Your task to perform on an android device: Open Google Chrome and open the bookmarks view Image 0: 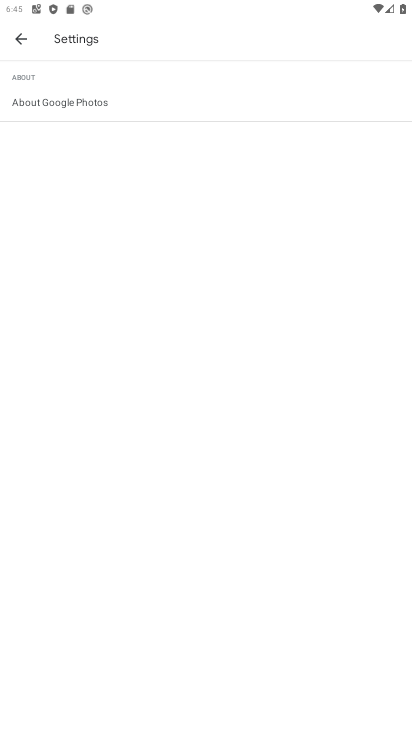
Step 0: press home button
Your task to perform on an android device: Open Google Chrome and open the bookmarks view Image 1: 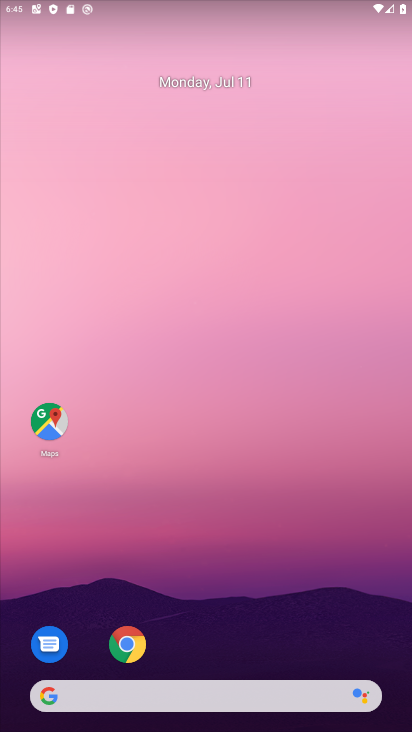
Step 1: drag from (207, 609) to (227, 198)
Your task to perform on an android device: Open Google Chrome and open the bookmarks view Image 2: 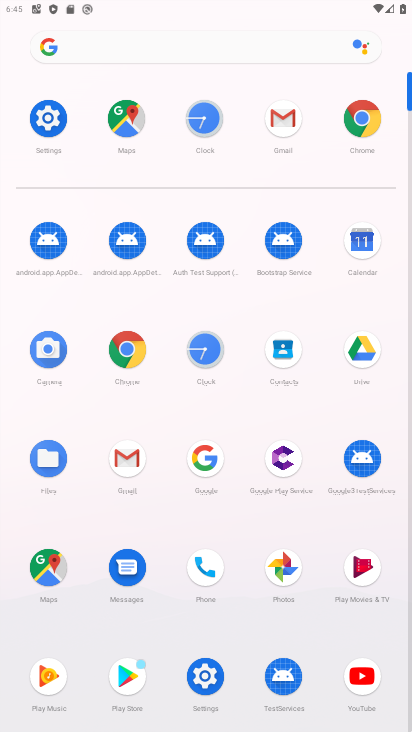
Step 2: click (133, 352)
Your task to perform on an android device: Open Google Chrome and open the bookmarks view Image 3: 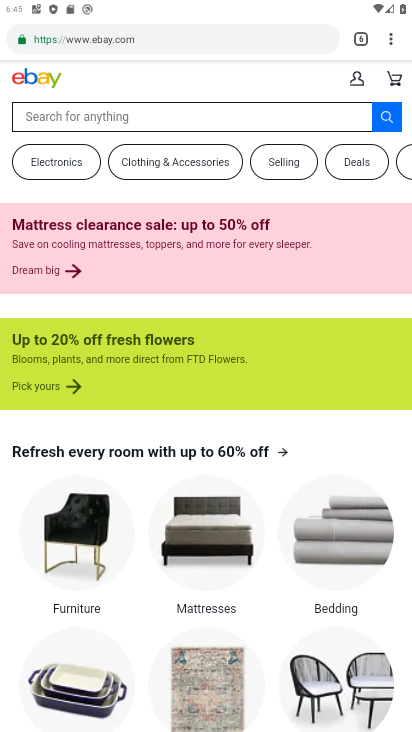
Step 3: task complete